Your task to perform on an android device: open chrome privacy settings Image 0: 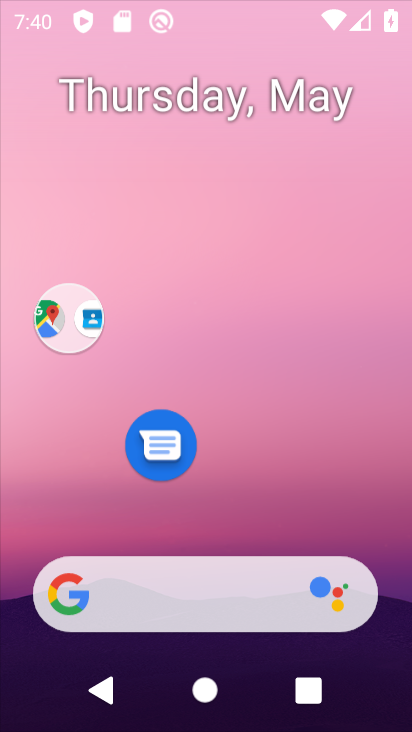
Step 0: press home button
Your task to perform on an android device: open chrome privacy settings Image 1: 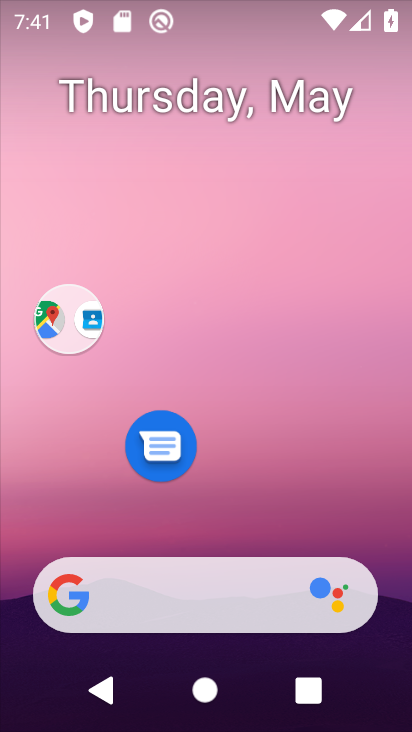
Step 1: drag from (279, 649) to (239, 186)
Your task to perform on an android device: open chrome privacy settings Image 2: 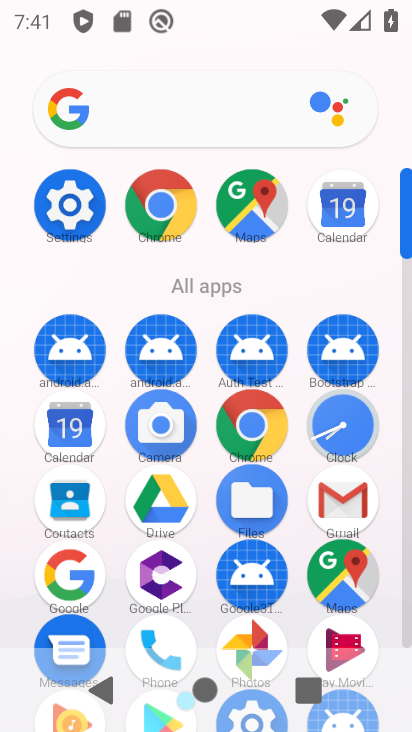
Step 2: click (167, 223)
Your task to perform on an android device: open chrome privacy settings Image 3: 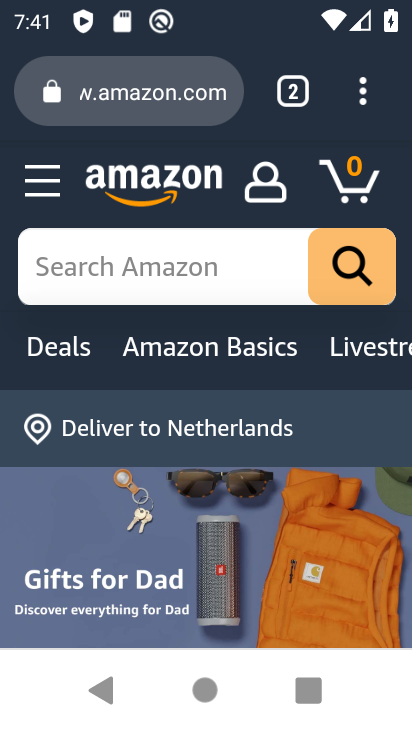
Step 3: click (344, 114)
Your task to perform on an android device: open chrome privacy settings Image 4: 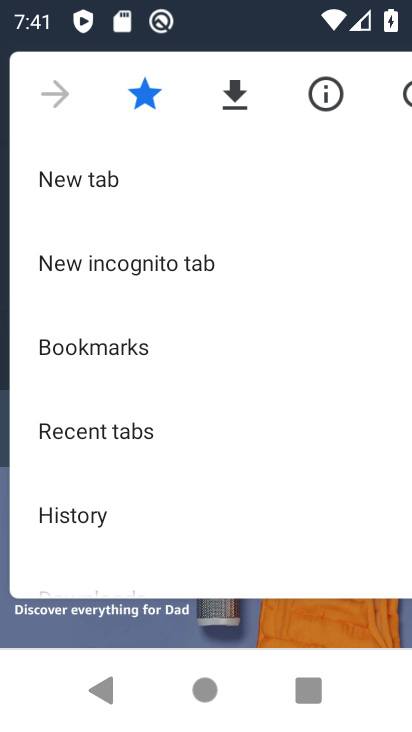
Step 4: drag from (171, 506) to (221, 107)
Your task to perform on an android device: open chrome privacy settings Image 5: 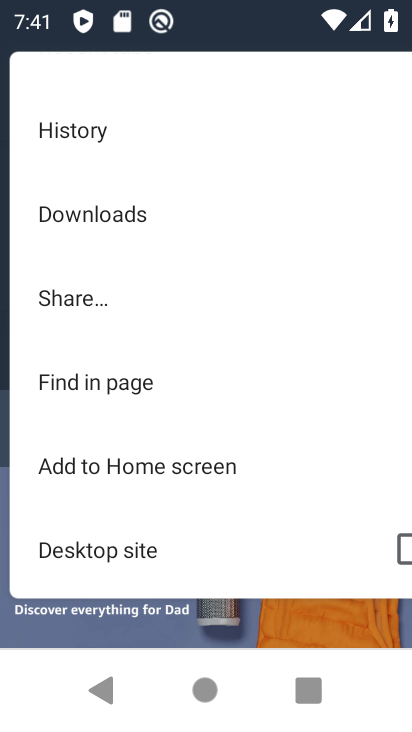
Step 5: drag from (114, 494) to (126, 294)
Your task to perform on an android device: open chrome privacy settings Image 6: 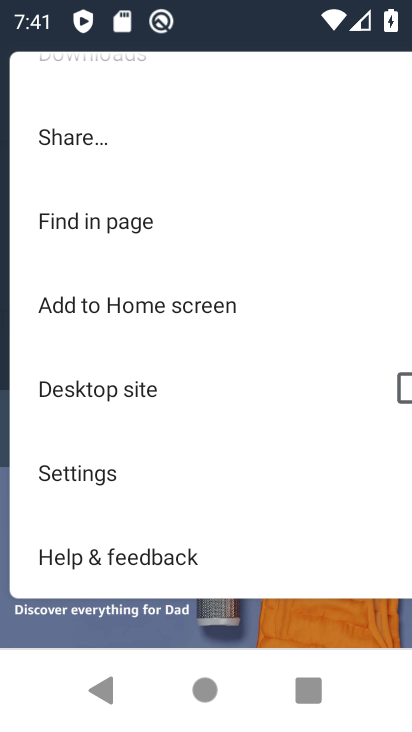
Step 6: click (140, 489)
Your task to perform on an android device: open chrome privacy settings Image 7: 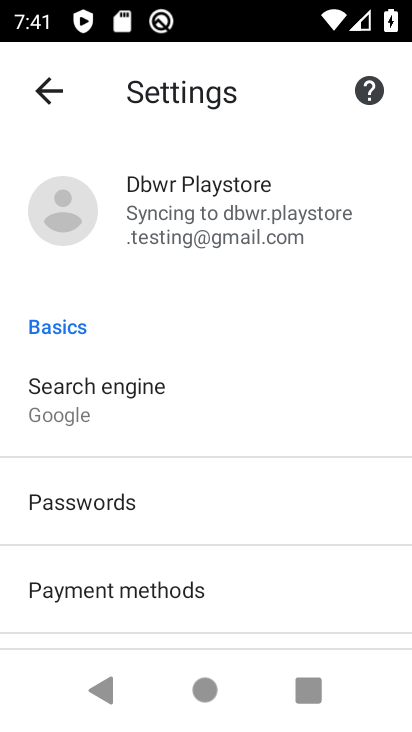
Step 7: drag from (160, 498) to (204, 243)
Your task to perform on an android device: open chrome privacy settings Image 8: 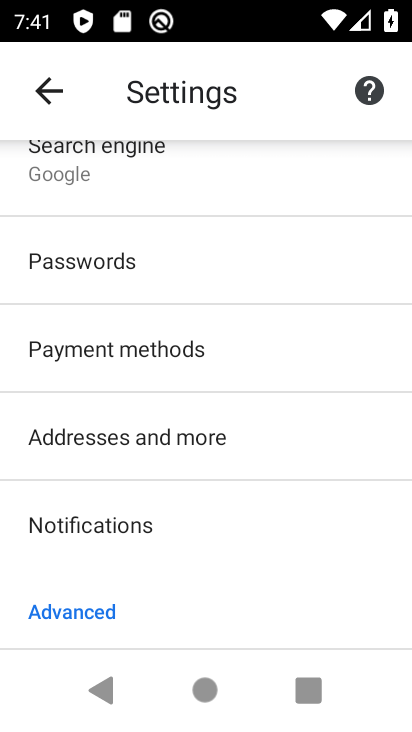
Step 8: drag from (209, 562) to (212, 263)
Your task to perform on an android device: open chrome privacy settings Image 9: 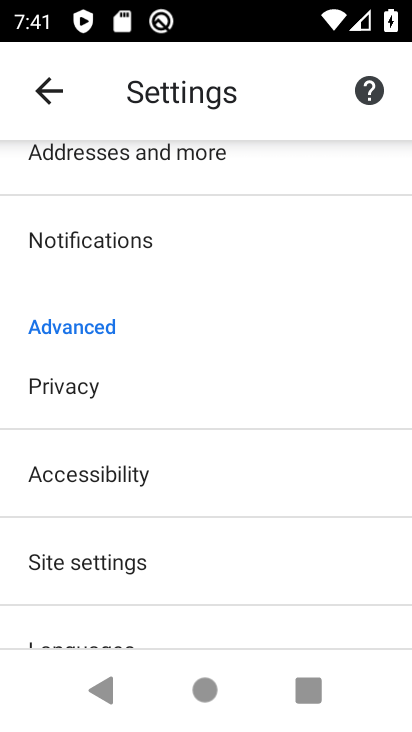
Step 9: click (48, 380)
Your task to perform on an android device: open chrome privacy settings Image 10: 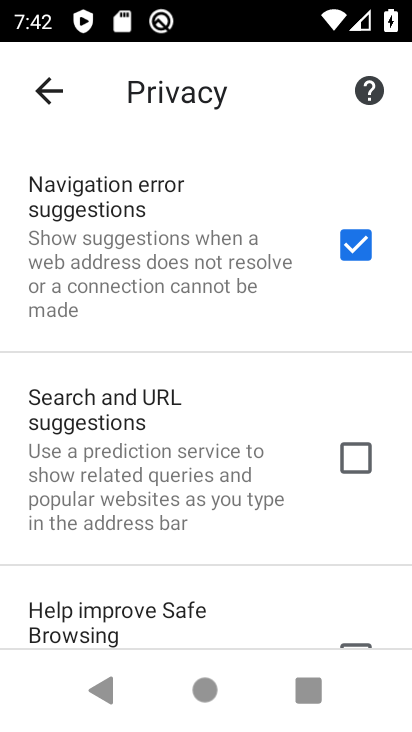
Step 10: task complete